Your task to perform on an android device: check data usage Image 0: 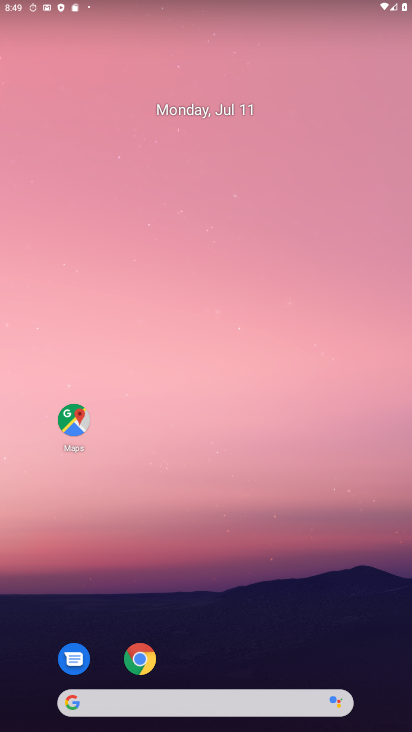
Step 0: drag from (343, 692) to (242, 157)
Your task to perform on an android device: check data usage Image 1: 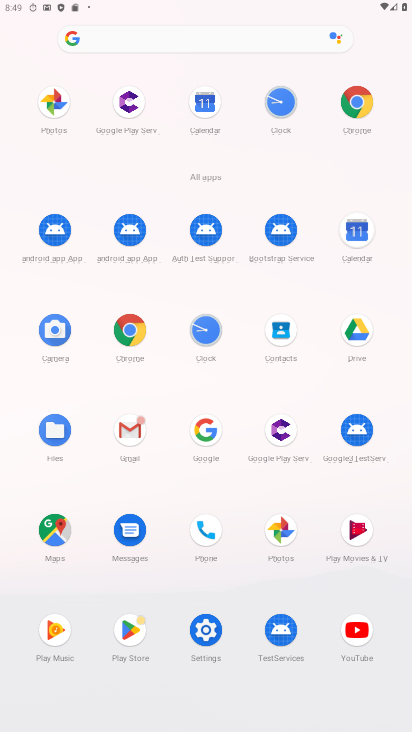
Step 1: drag from (248, 553) to (184, 212)
Your task to perform on an android device: check data usage Image 2: 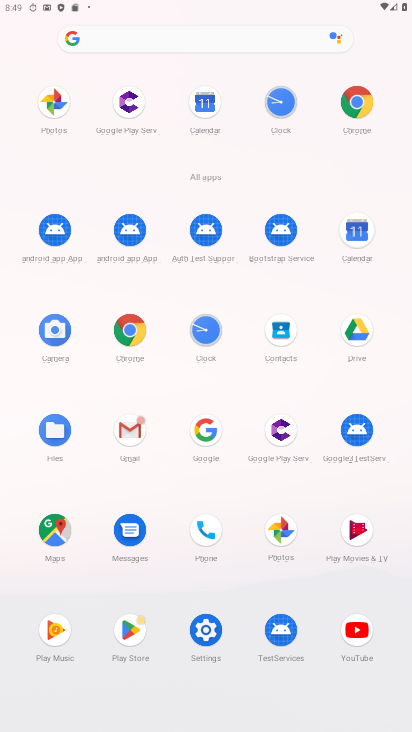
Step 2: click (205, 633)
Your task to perform on an android device: check data usage Image 3: 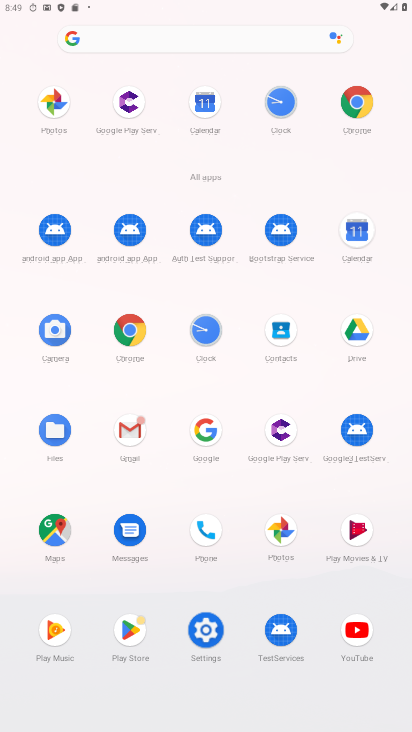
Step 3: click (207, 631)
Your task to perform on an android device: check data usage Image 4: 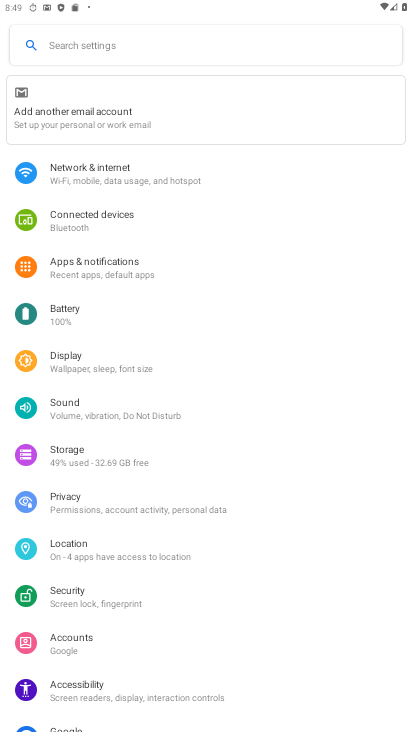
Step 4: click (90, 184)
Your task to perform on an android device: check data usage Image 5: 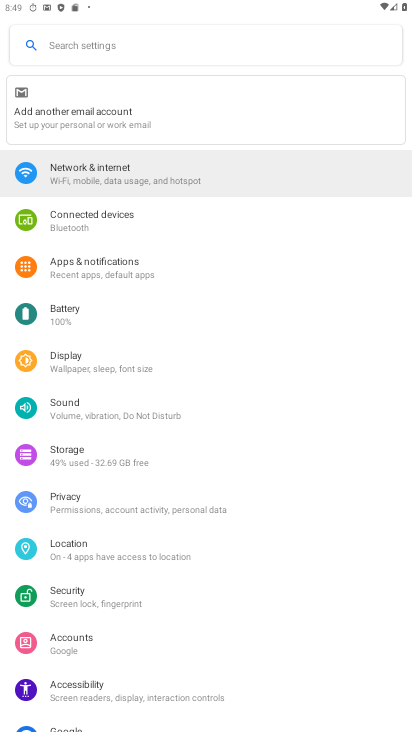
Step 5: click (90, 184)
Your task to perform on an android device: check data usage Image 6: 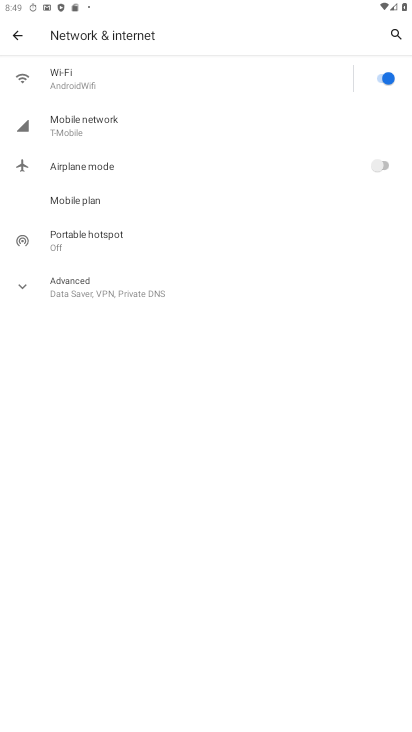
Step 6: click (15, 36)
Your task to perform on an android device: check data usage Image 7: 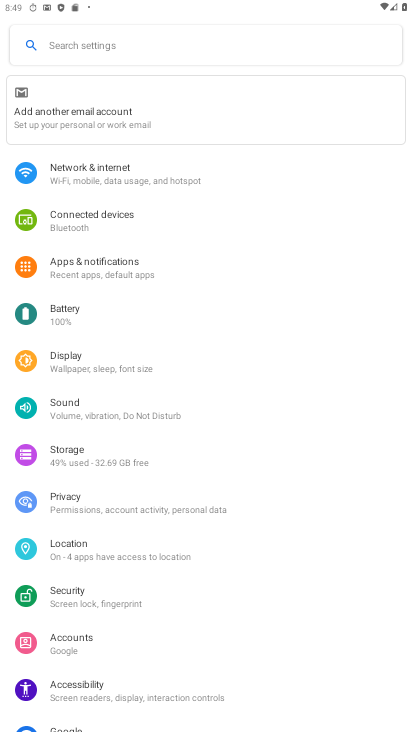
Step 7: task complete